Your task to perform on an android device: check data usage Image 0: 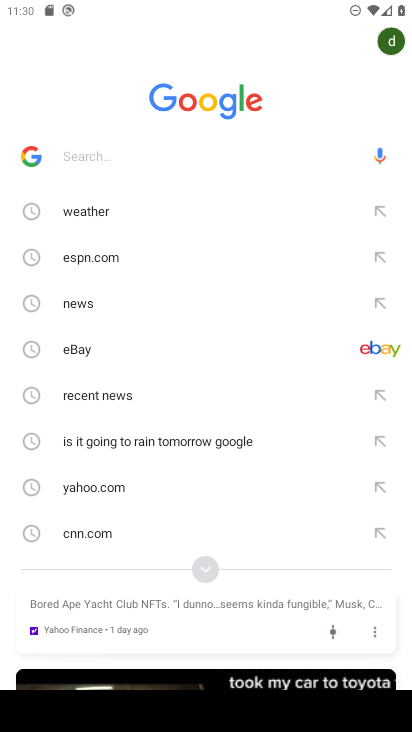
Step 0: press home button
Your task to perform on an android device: check data usage Image 1: 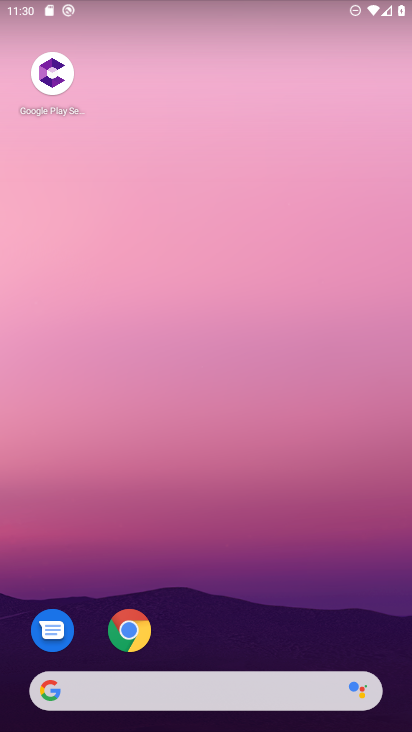
Step 1: drag from (283, 625) to (249, 126)
Your task to perform on an android device: check data usage Image 2: 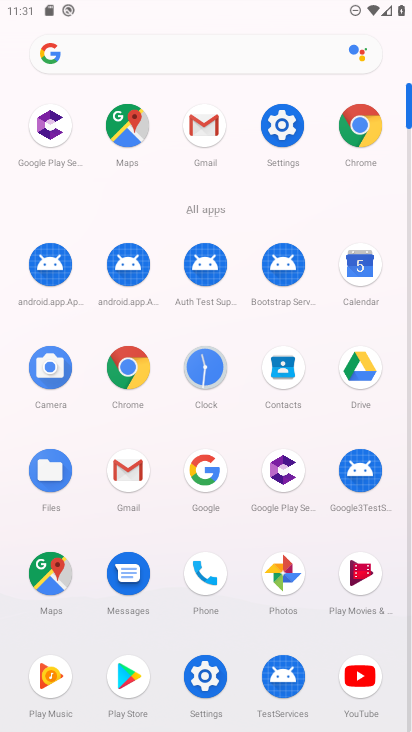
Step 2: click (288, 112)
Your task to perform on an android device: check data usage Image 3: 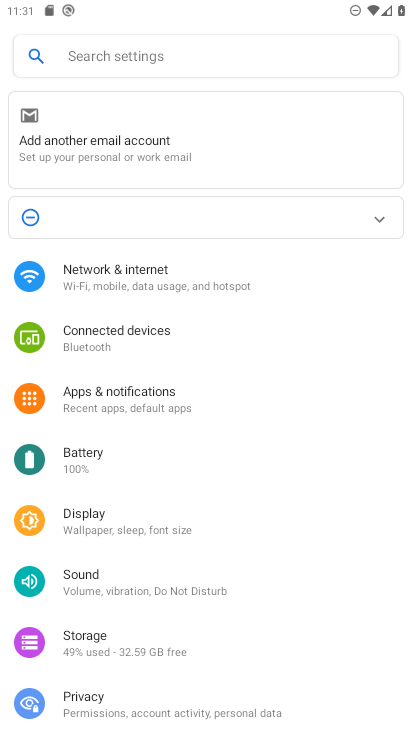
Step 3: click (155, 289)
Your task to perform on an android device: check data usage Image 4: 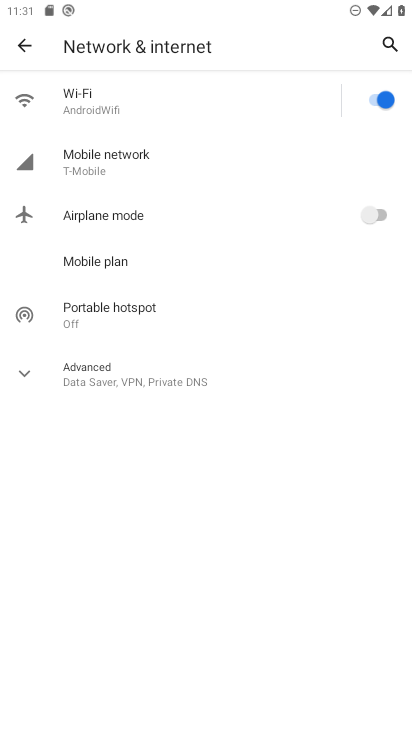
Step 4: click (150, 166)
Your task to perform on an android device: check data usage Image 5: 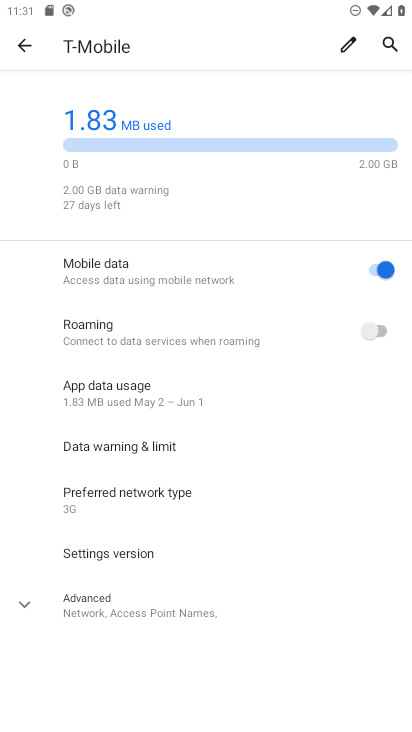
Step 5: task complete